Your task to perform on an android device: turn on the 24-hour format for clock Image 0: 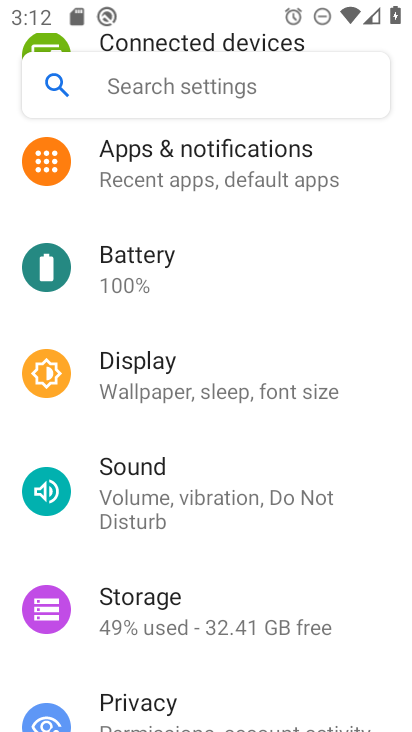
Step 0: press home button
Your task to perform on an android device: turn on the 24-hour format for clock Image 1: 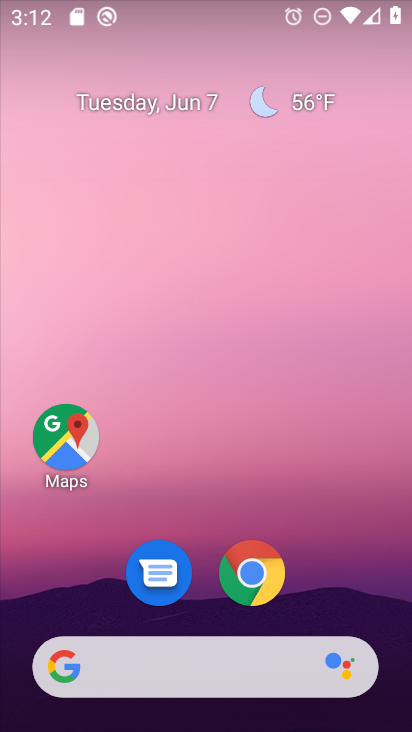
Step 1: drag from (343, 571) to (325, 46)
Your task to perform on an android device: turn on the 24-hour format for clock Image 2: 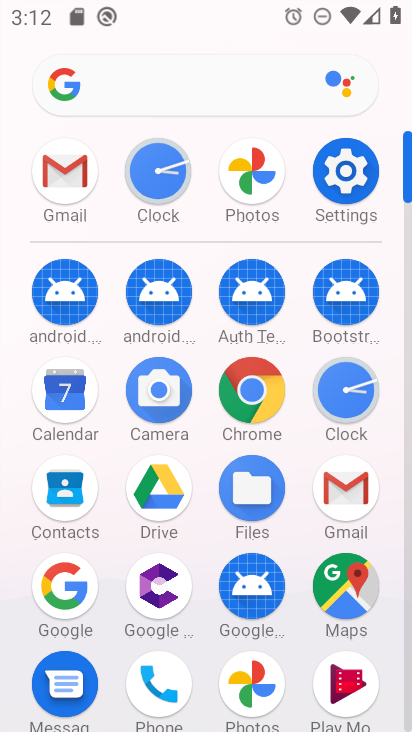
Step 2: click (337, 383)
Your task to perform on an android device: turn on the 24-hour format for clock Image 3: 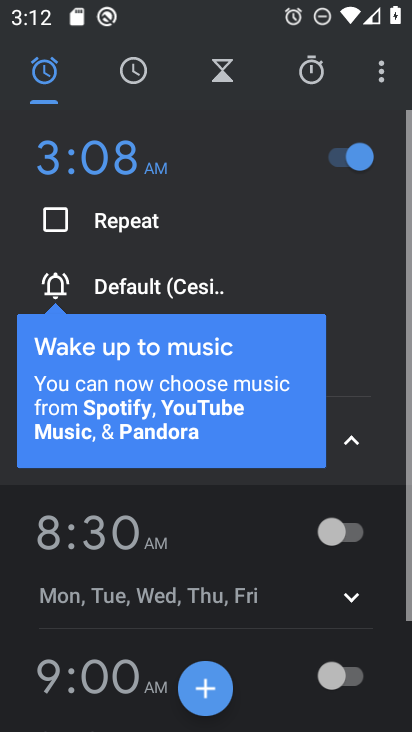
Step 3: click (377, 72)
Your task to perform on an android device: turn on the 24-hour format for clock Image 4: 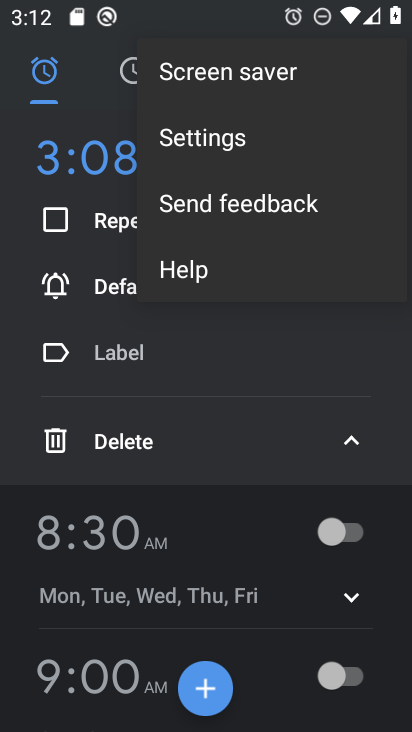
Step 4: click (211, 147)
Your task to perform on an android device: turn on the 24-hour format for clock Image 5: 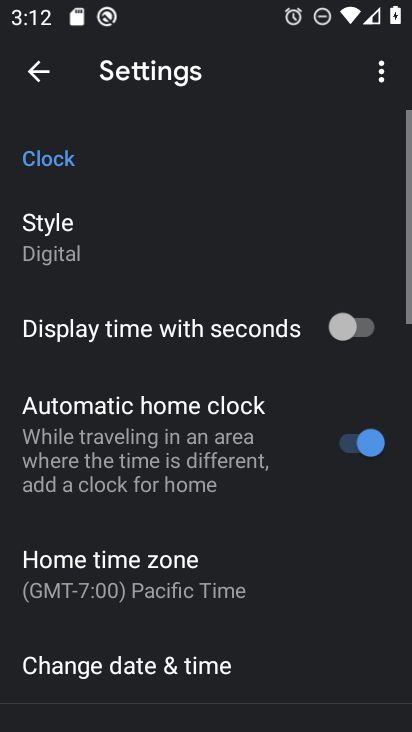
Step 5: click (142, 671)
Your task to perform on an android device: turn on the 24-hour format for clock Image 6: 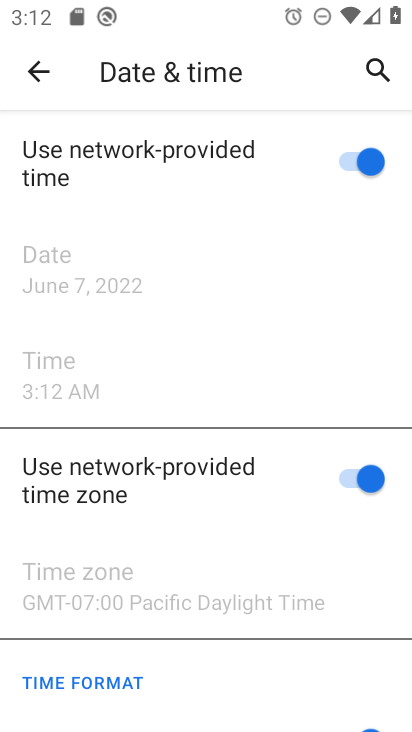
Step 6: drag from (276, 667) to (321, 209)
Your task to perform on an android device: turn on the 24-hour format for clock Image 7: 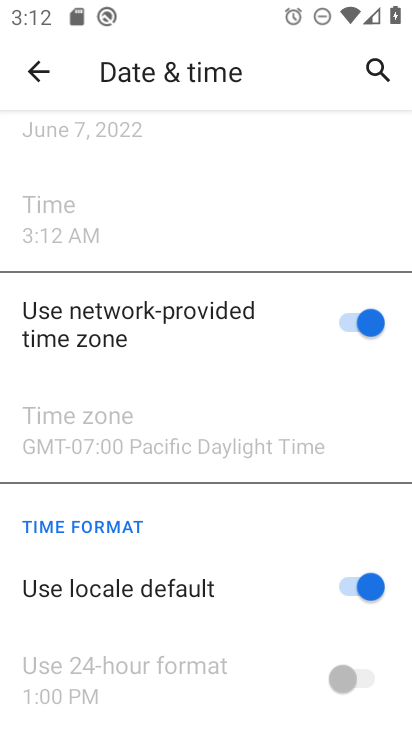
Step 7: click (394, 567)
Your task to perform on an android device: turn on the 24-hour format for clock Image 8: 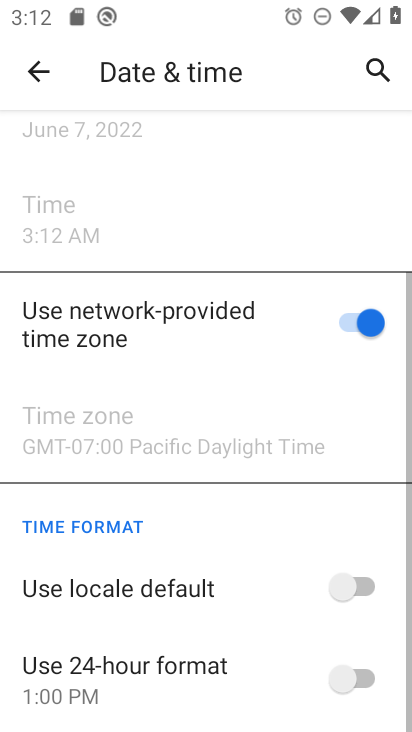
Step 8: click (344, 684)
Your task to perform on an android device: turn on the 24-hour format for clock Image 9: 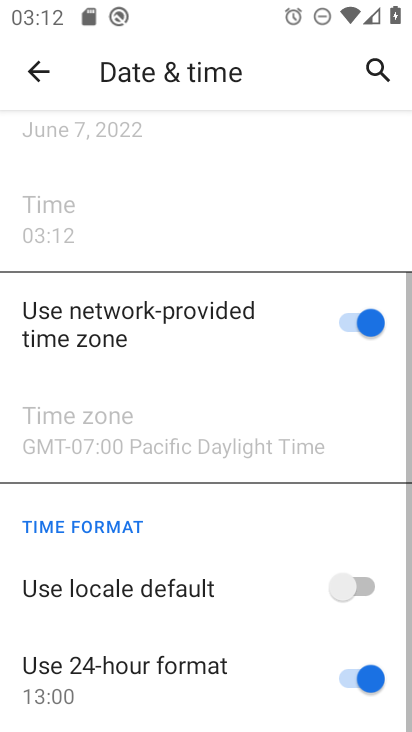
Step 9: task complete